Your task to perform on an android device: When is my next appointment? Image 0: 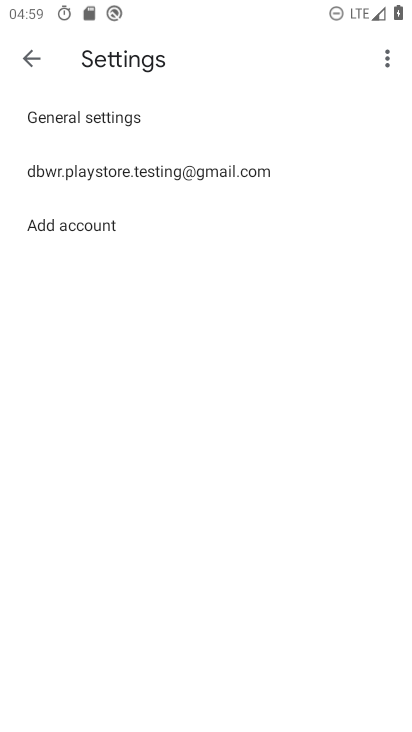
Step 0: press back button
Your task to perform on an android device: When is my next appointment? Image 1: 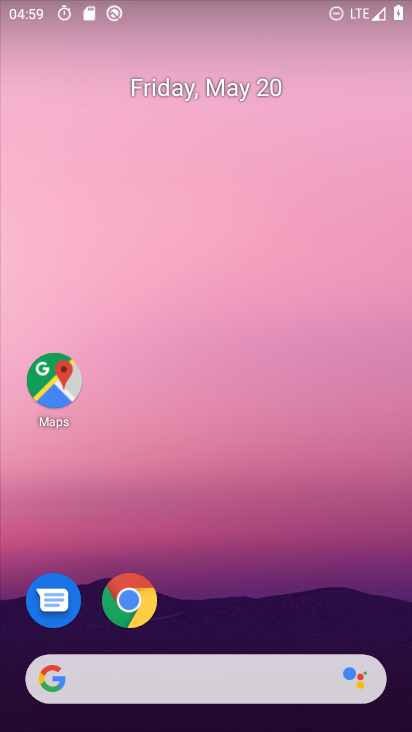
Step 1: drag from (249, 592) to (312, 58)
Your task to perform on an android device: When is my next appointment? Image 2: 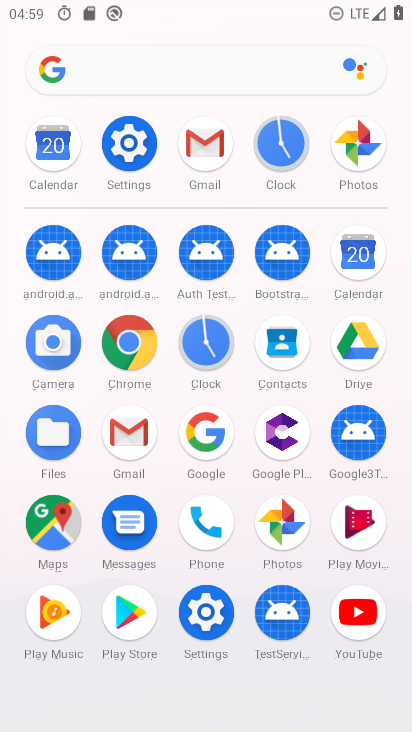
Step 2: click (358, 254)
Your task to perform on an android device: When is my next appointment? Image 3: 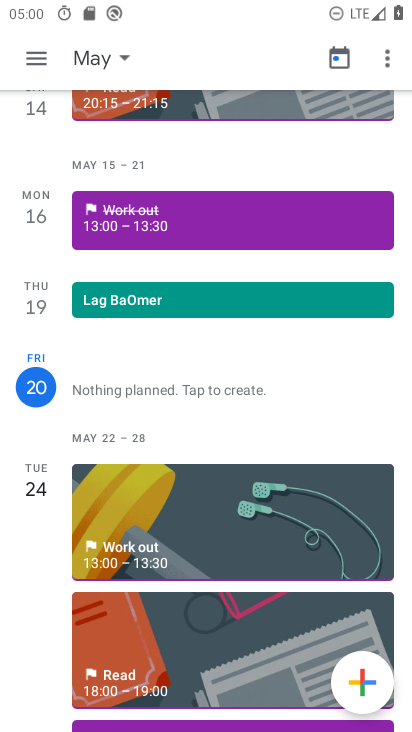
Step 3: task complete